Your task to perform on an android device: turn on the 12-hour format for clock Image 0: 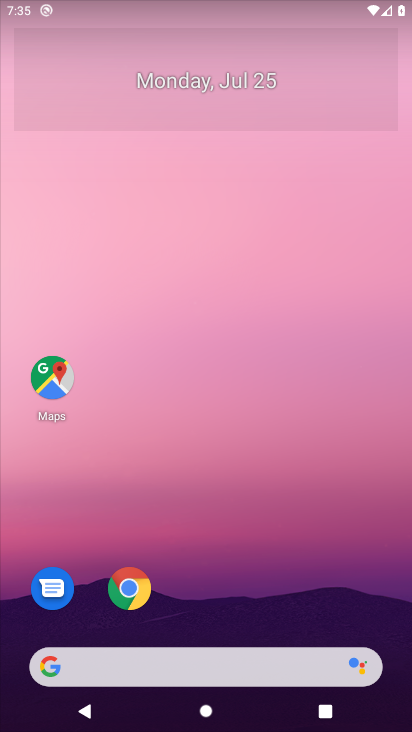
Step 0: drag from (226, 586) to (249, 245)
Your task to perform on an android device: turn on the 12-hour format for clock Image 1: 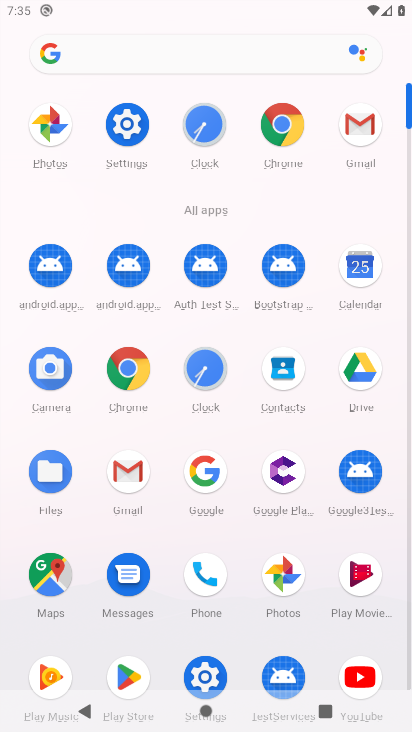
Step 1: click (205, 369)
Your task to perform on an android device: turn on the 12-hour format for clock Image 2: 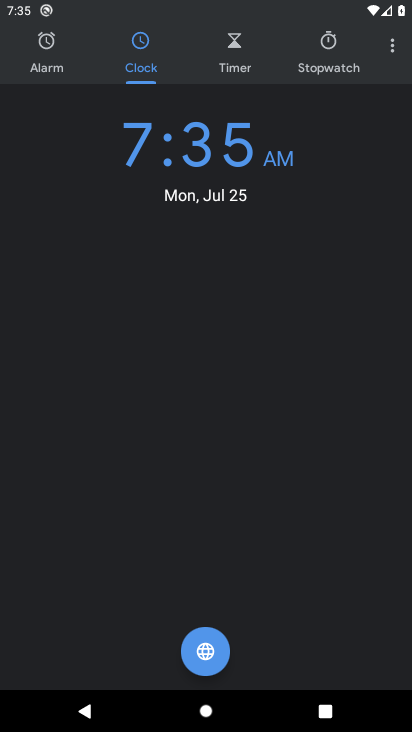
Step 2: click (390, 43)
Your task to perform on an android device: turn on the 12-hour format for clock Image 3: 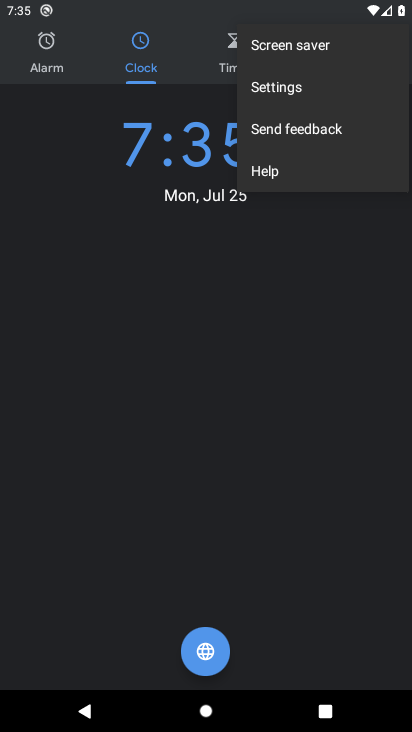
Step 3: click (290, 86)
Your task to perform on an android device: turn on the 12-hour format for clock Image 4: 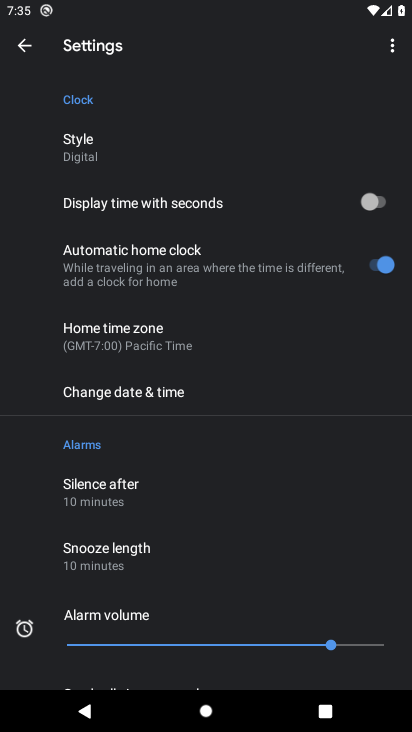
Step 4: task complete